Your task to perform on an android device: View the shopping cart on newegg.com. Search for "usb-c to usb-b" on newegg.com, select the first entry, and add it to the cart. Image 0: 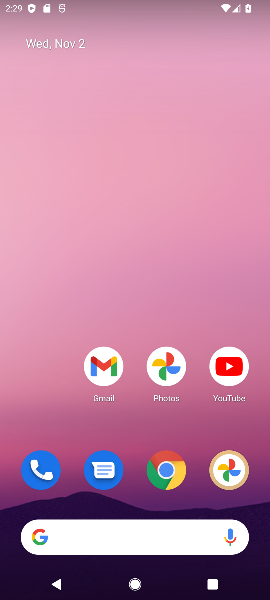
Step 0: drag from (140, 505) to (140, 95)
Your task to perform on an android device: View the shopping cart on newegg.com. Search for "usb-c to usb-b" on newegg.com, select the first entry, and add it to the cart. Image 1: 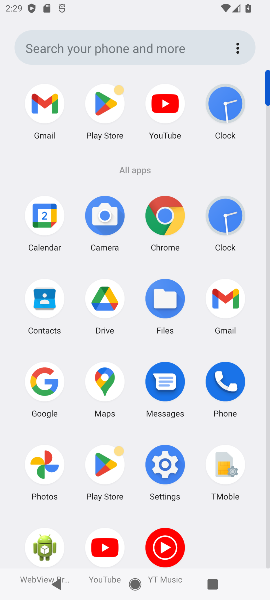
Step 1: click (42, 387)
Your task to perform on an android device: View the shopping cart on newegg.com. Search for "usb-c to usb-b" on newegg.com, select the first entry, and add it to the cart. Image 2: 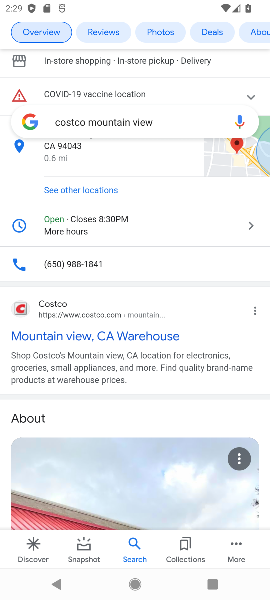
Step 2: click (102, 118)
Your task to perform on an android device: View the shopping cart on newegg.com. Search for "usb-c to usb-b" on newegg.com, select the first entry, and add it to the cart. Image 3: 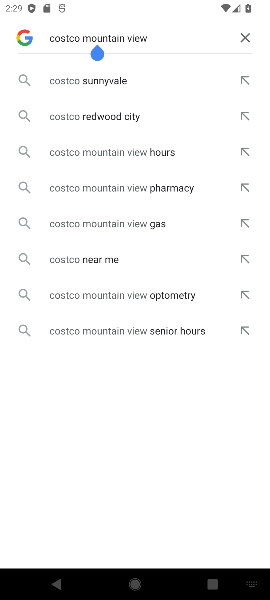
Step 3: click (242, 37)
Your task to perform on an android device: View the shopping cart on newegg.com. Search for "usb-c to usb-b" on newegg.com, select the first entry, and add it to the cart. Image 4: 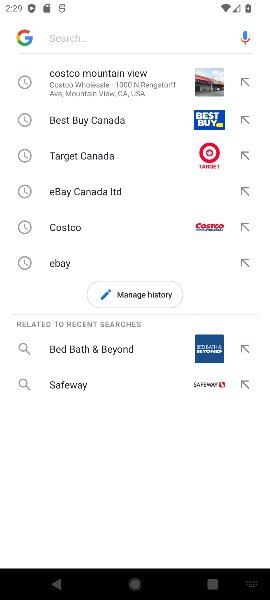
Step 4: click (90, 33)
Your task to perform on an android device: View the shopping cart on newegg.com. Search for "usb-c to usb-b" on newegg.com, select the first entry, and add it to the cart. Image 5: 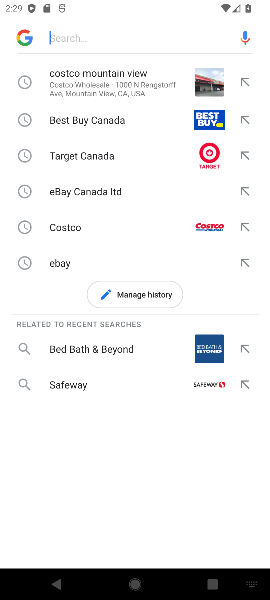
Step 5: type "newegg "
Your task to perform on an android device: View the shopping cart on newegg.com. Search for "usb-c to usb-b" on newegg.com, select the first entry, and add it to the cart. Image 6: 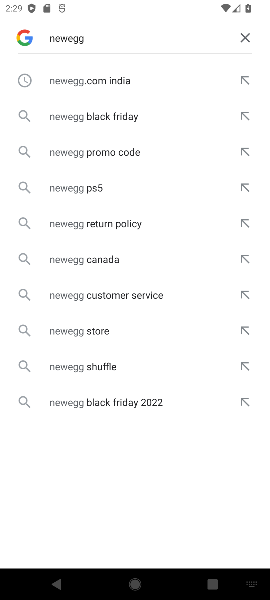
Step 6: click (99, 77)
Your task to perform on an android device: View the shopping cart on newegg.com. Search for "usb-c to usb-b" on newegg.com, select the first entry, and add it to the cart. Image 7: 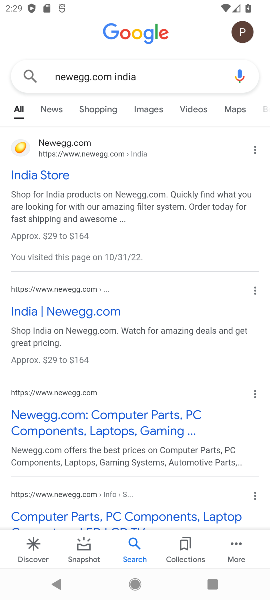
Step 7: click (21, 149)
Your task to perform on an android device: View the shopping cart on newegg.com. Search for "usb-c to usb-b" on newegg.com, select the first entry, and add it to the cart. Image 8: 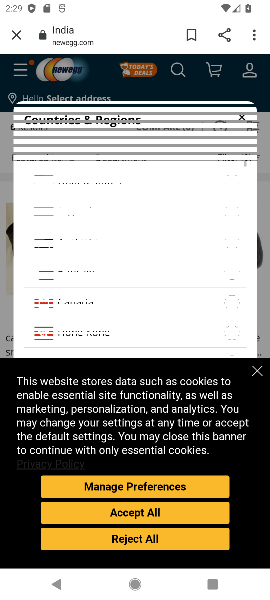
Step 8: click (260, 371)
Your task to perform on an android device: View the shopping cart on newegg.com. Search for "usb-c to usb-b" on newegg.com, select the first entry, and add it to the cart. Image 9: 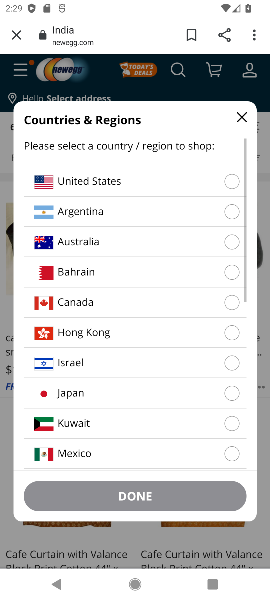
Step 9: click (231, 176)
Your task to perform on an android device: View the shopping cart on newegg.com. Search for "usb-c to usb-b" on newegg.com, select the first entry, and add it to the cart. Image 10: 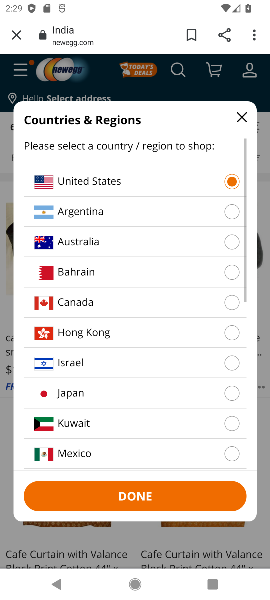
Step 10: click (160, 490)
Your task to perform on an android device: View the shopping cart on newegg.com. Search for "usb-c to usb-b" on newegg.com, select the first entry, and add it to the cart. Image 11: 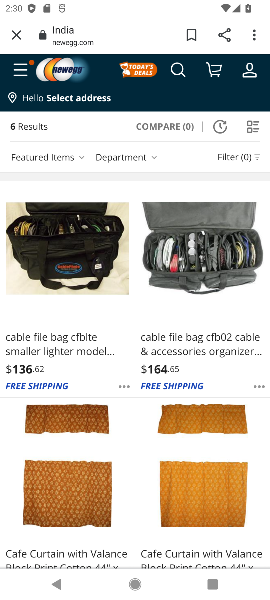
Step 11: click (174, 65)
Your task to perform on an android device: View the shopping cart on newegg.com. Search for "usb-c to usb-b" on newegg.com, select the first entry, and add it to the cart. Image 12: 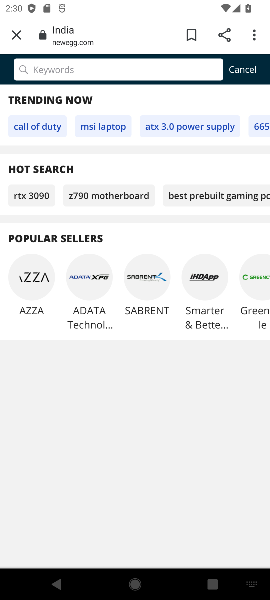
Step 12: click (72, 64)
Your task to perform on an android device: View the shopping cart on newegg.com. Search for "usb-c to usb-b" on newegg.com, select the first entry, and add it to the cart. Image 13: 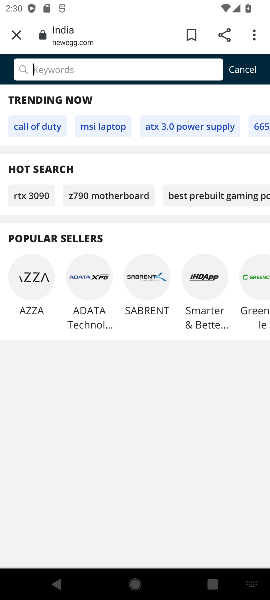
Step 13: click (72, 64)
Your task to perform on an android device: View the shopping cart on newegg.com. Search for "usb-c to usb-b" on newegg.com, select the first entry, and add it to the cart. Image 14: 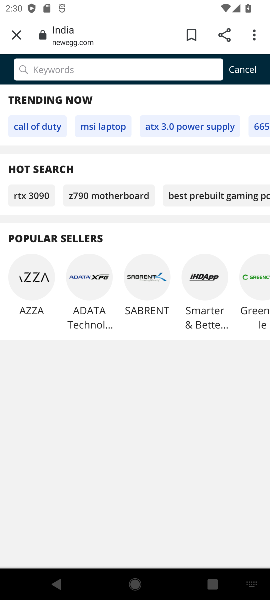
Step 14: type "usb-c "
Your task to perform on an android device: View the shopping cart on newegg.com. Search for "usb-c to usb-b" on newegg.com, select the first entry, and add it to the cart. Image 15: 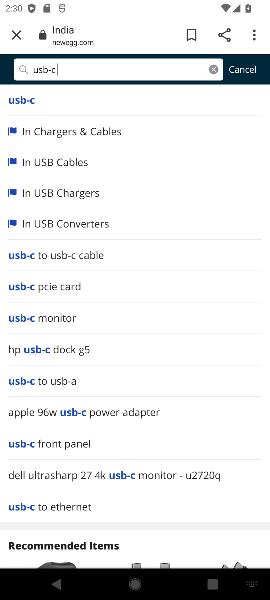
Step 15: click (111, 259)
Your task to perform on an android device: View the shopping cart on newegg.com. Search for "usb-c to usb-b" on newegg.com, select the first entry, and add it to the cart. Image 16: 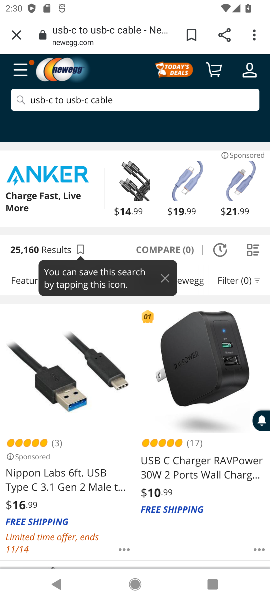
Step 16: click (27, 475)
Your task to perform on an android device: View the shopping cart on newegg.com. Search for "usb-c to usb-b" on newegg.com, select the first entry, and add it to the cart. Image 17: 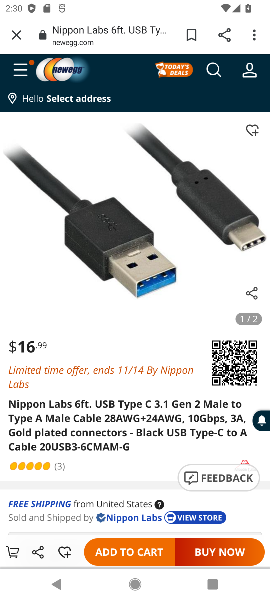
Step 17: click (135, 547)
Your task to perform on an android device: View the shopping cart on newegg.com. Search for "usb-c to usb-b" on newegg.com, select the first entry, and add it to the cart. Image 18: 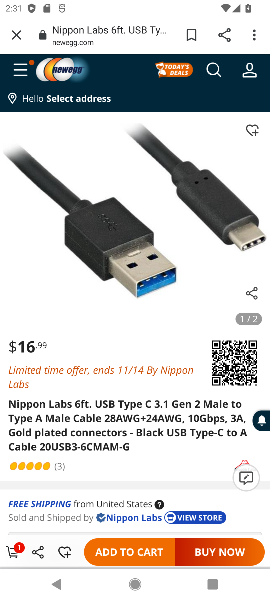
Step 18: click (124, 552)
Your task to perform on an android device: View the shopping cart on newegg.com. Search for "usb-c to usb-b" on newegg.com, select the first entry, and add it to the cart. Image 19: 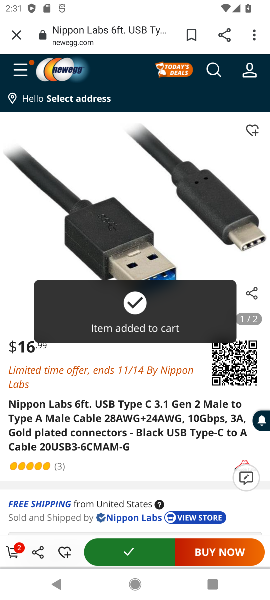
Step 19: task complete